Your task to perform on an android device: Show the shopping cart on bestbuy.com. Add "razer nari" to the cart on bestbuy.com Image 0: 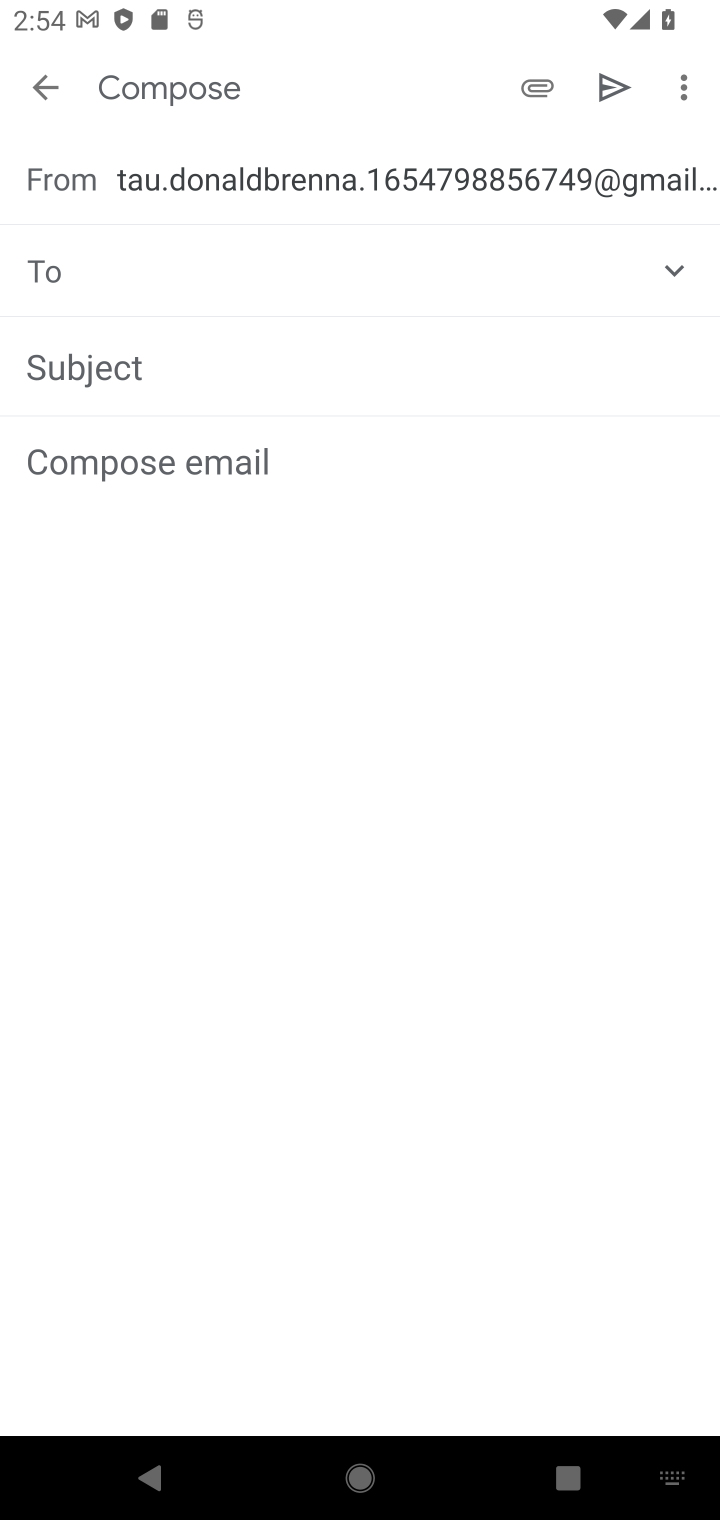
Step 0: press home button
Your task to perform on an android device: Show the shopping cart on bestbuy.com. Add "razer nari" to the cart on bestbuy.com Image 1: 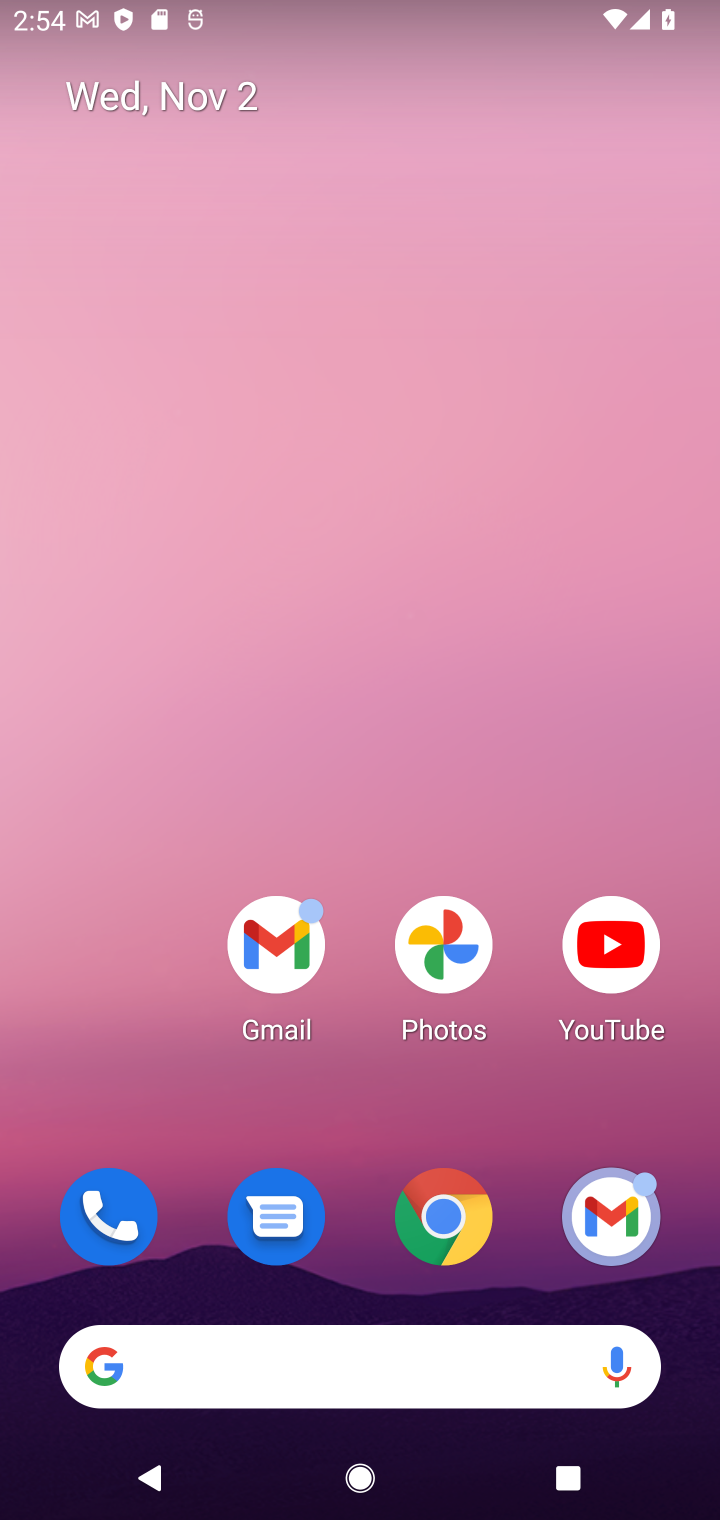
Step 1: click (440, 1202)
Your task to perform on an android device: Show the shopping cart on bestbuy.com. Add "razer nari" to the cart on bestbuy.com Image 2: 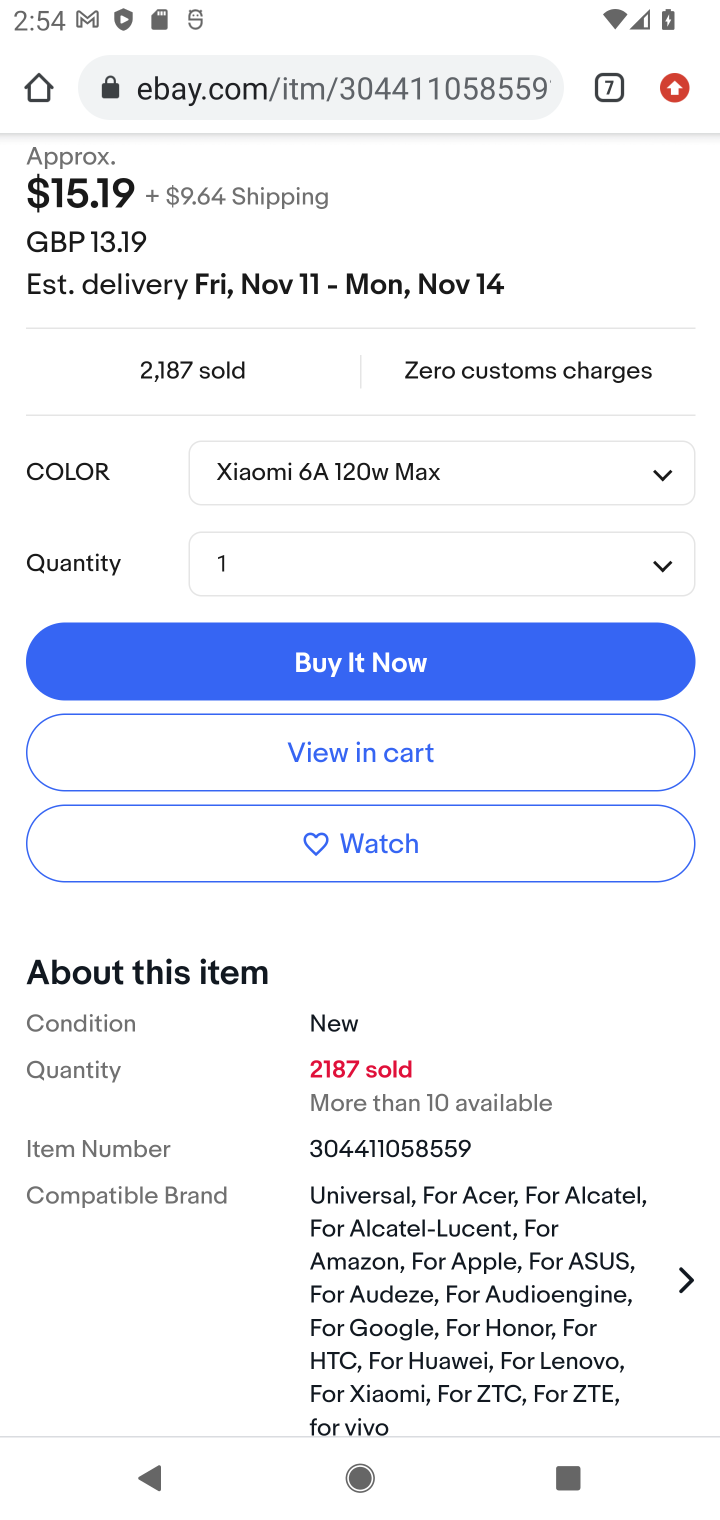
Step 2: click (605, 89)
Your task to perform on an android device: Show the shopping cart on bestbuy.com. Add "razer nari" to the cart on bestbuy.com Image 3: 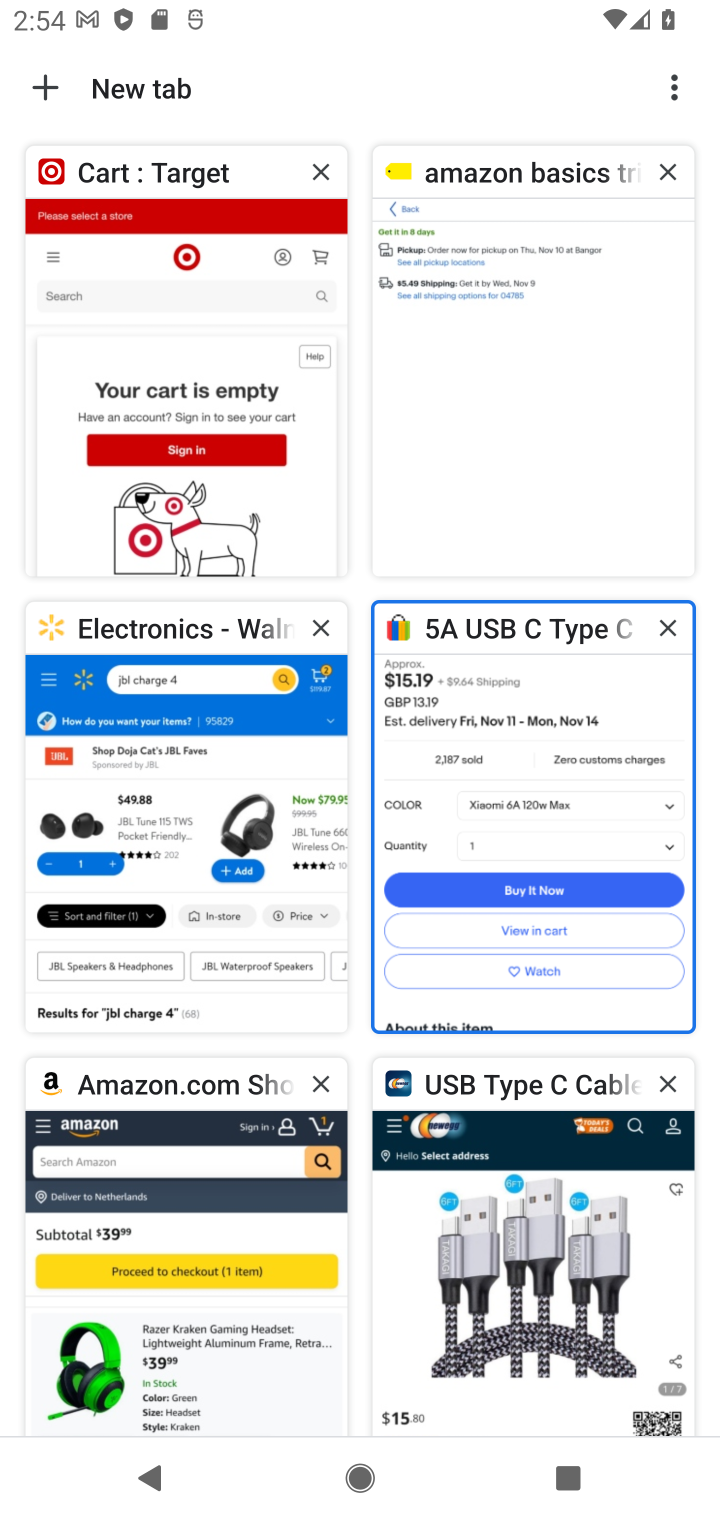
Step 3: click (525, 264)
Your task to perform on an android device: Show the shopping cart on bestbuy.com. Add "razer nari" to the cart on bestbuy.com Image 4: 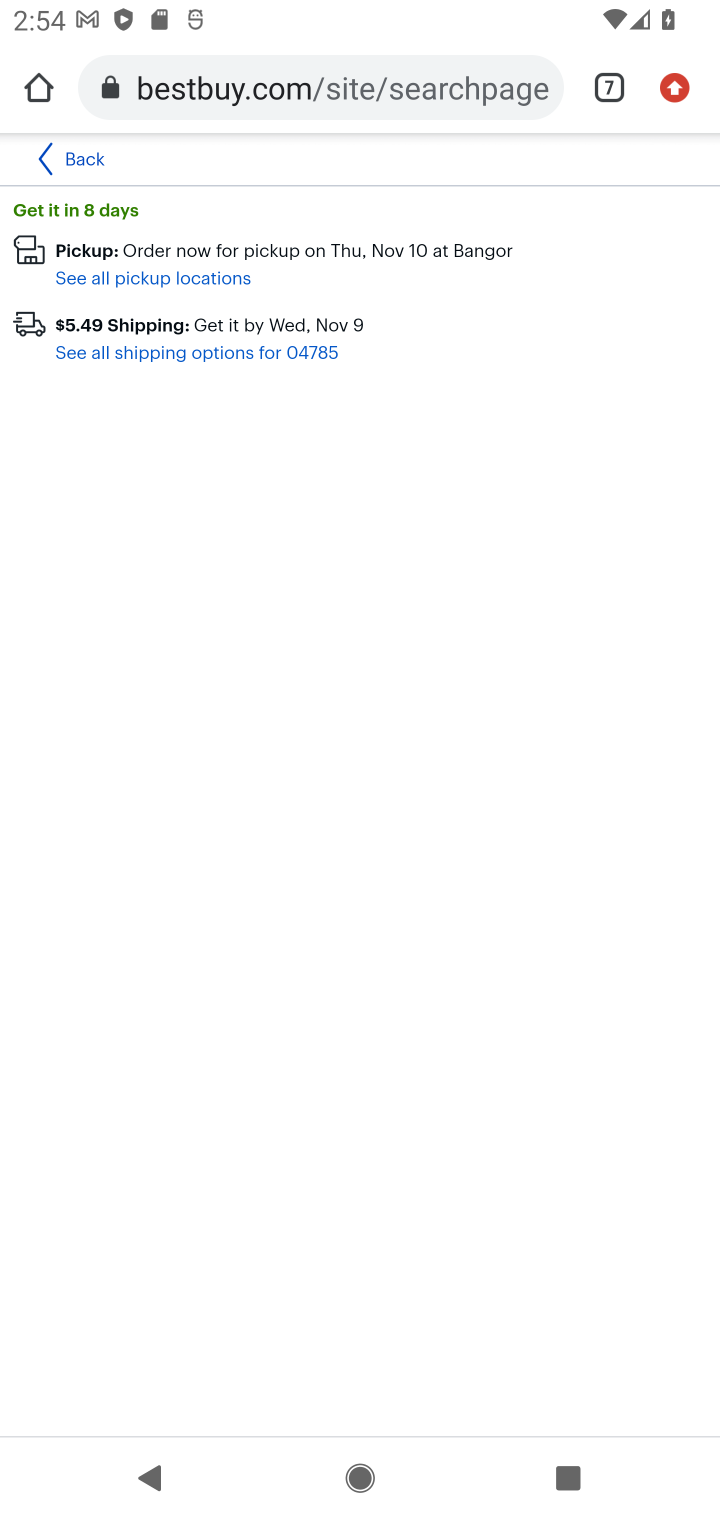
Step 4: click (72, 157)
Your task to perform on an android device: Show the shopping cart on bestbuy.com. Add "razer nari" to the cart on bestbuy.com Image 5: 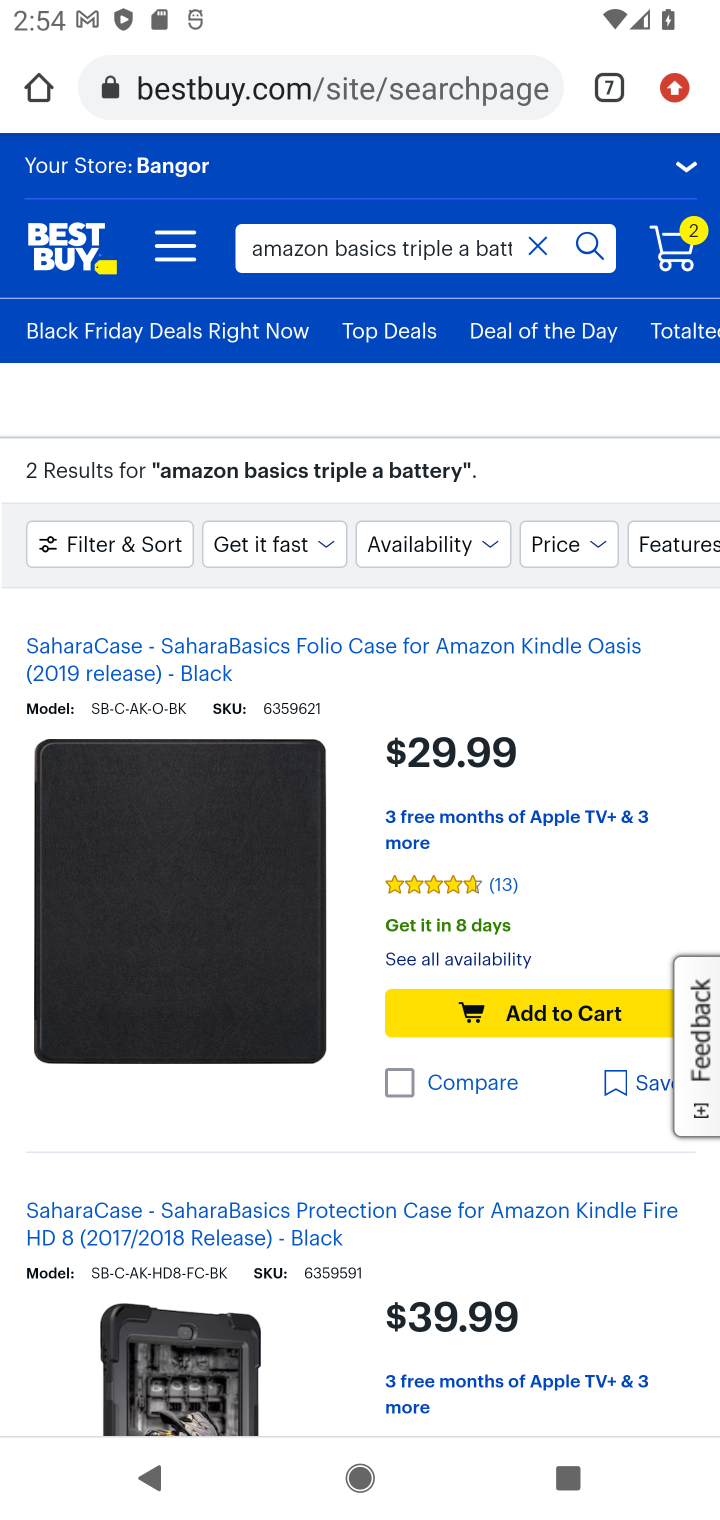
Step 5: click (540, 240)
Your task to perform on an android device: Show the shopping cart on bestbuy.com. Add "razer nari" to the cart on bestbuy.com Image 6: 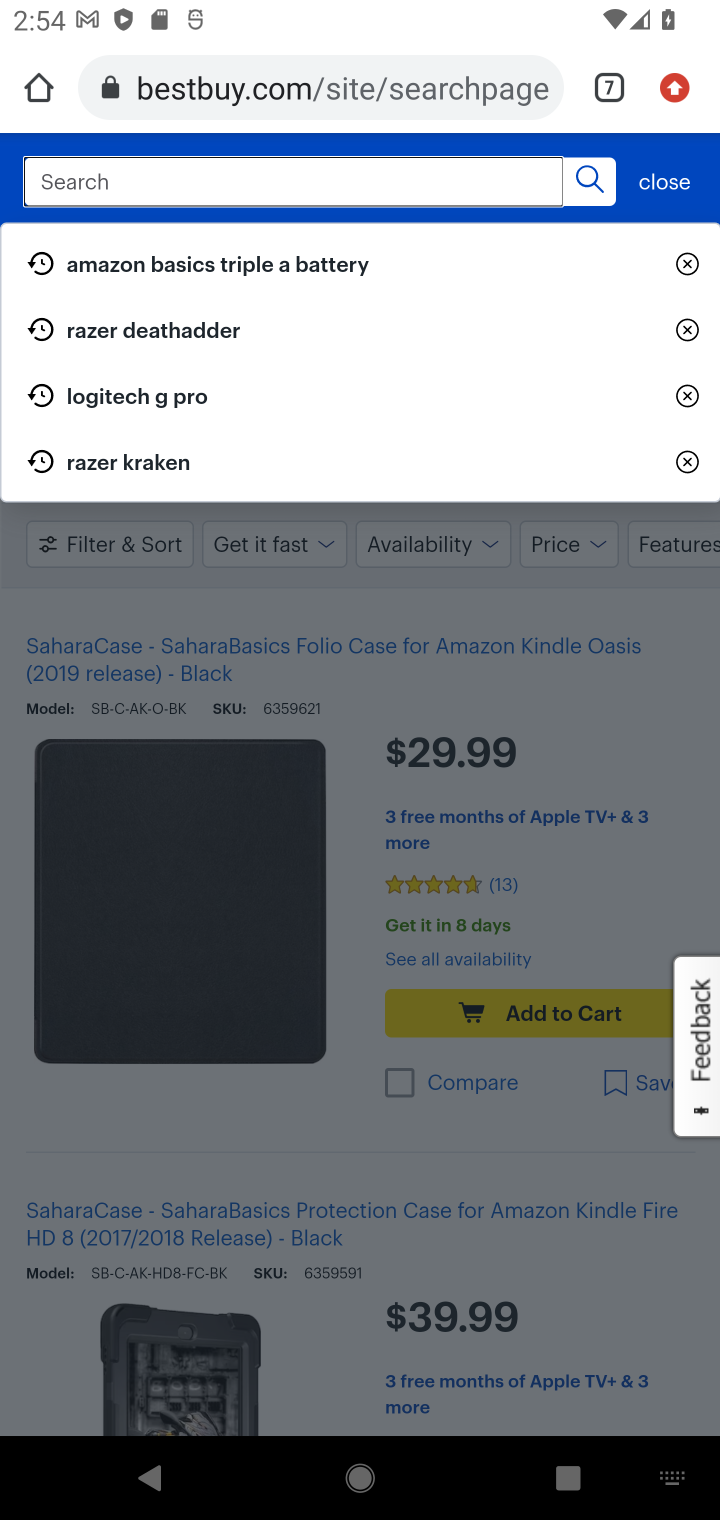
Step 6: type "razer nari"
Your task to perform on an android device: Show the shopping cart on bestbuy.com. Add "razer nari" to the cart on bestbuy.com Image 7: 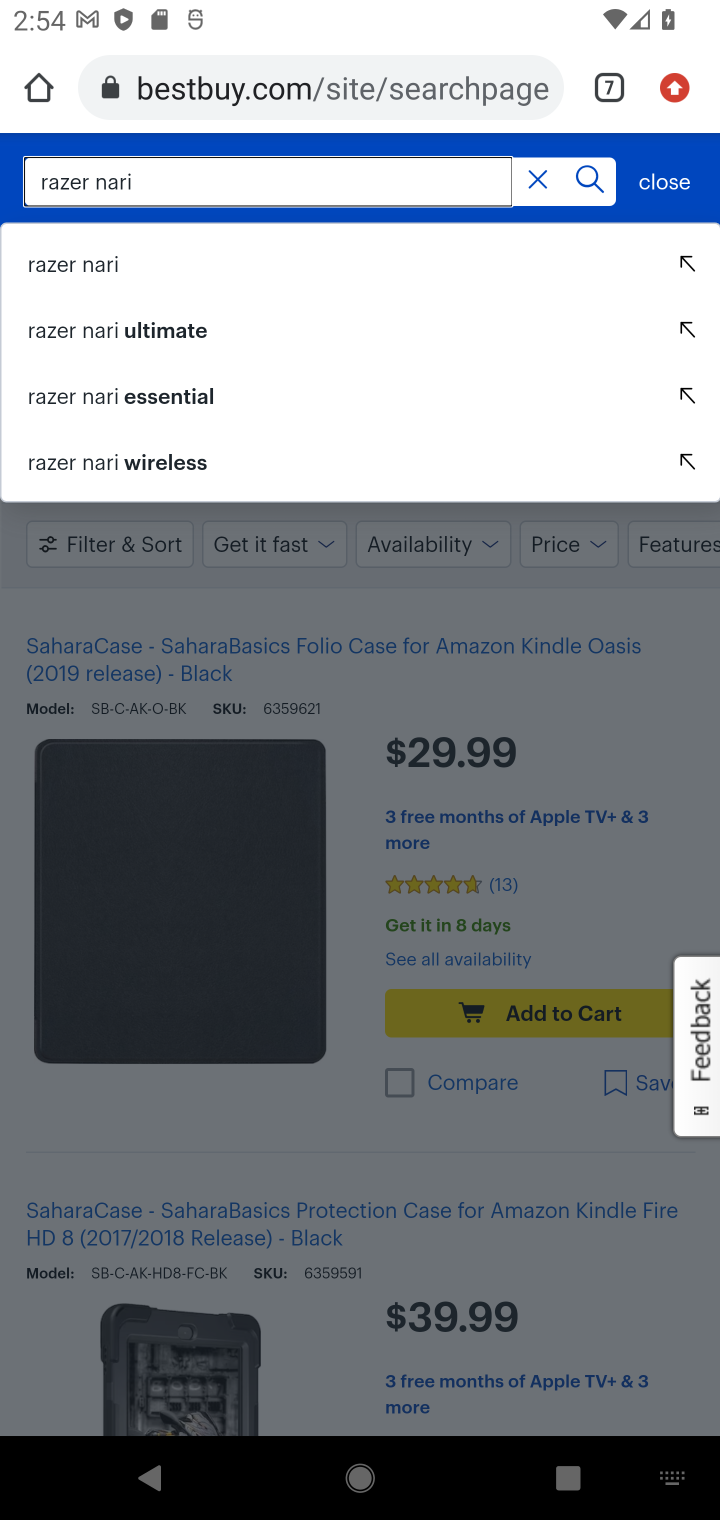
Step 7: click (49, 328)
Your task to perform on an android device: Show the shopping cart on bestbuy.com. Add "razer nari" to the cart on bestbuy.com Image 8: 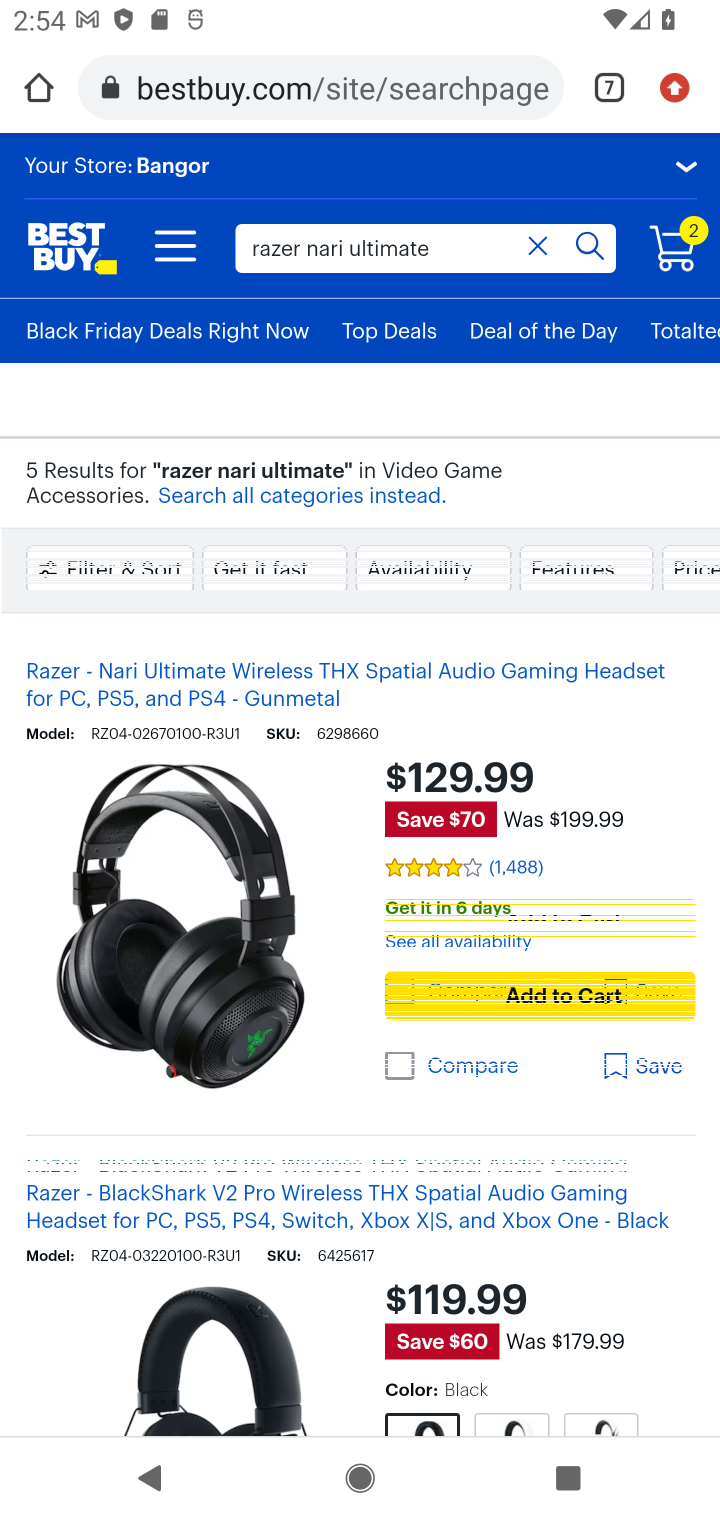
Step 8: click (529, 917)
Your task to perform on an android device: Show the shopping cart on bestbuy.com. Add "razer nari" to the cart on bestbuy.com Image 9: 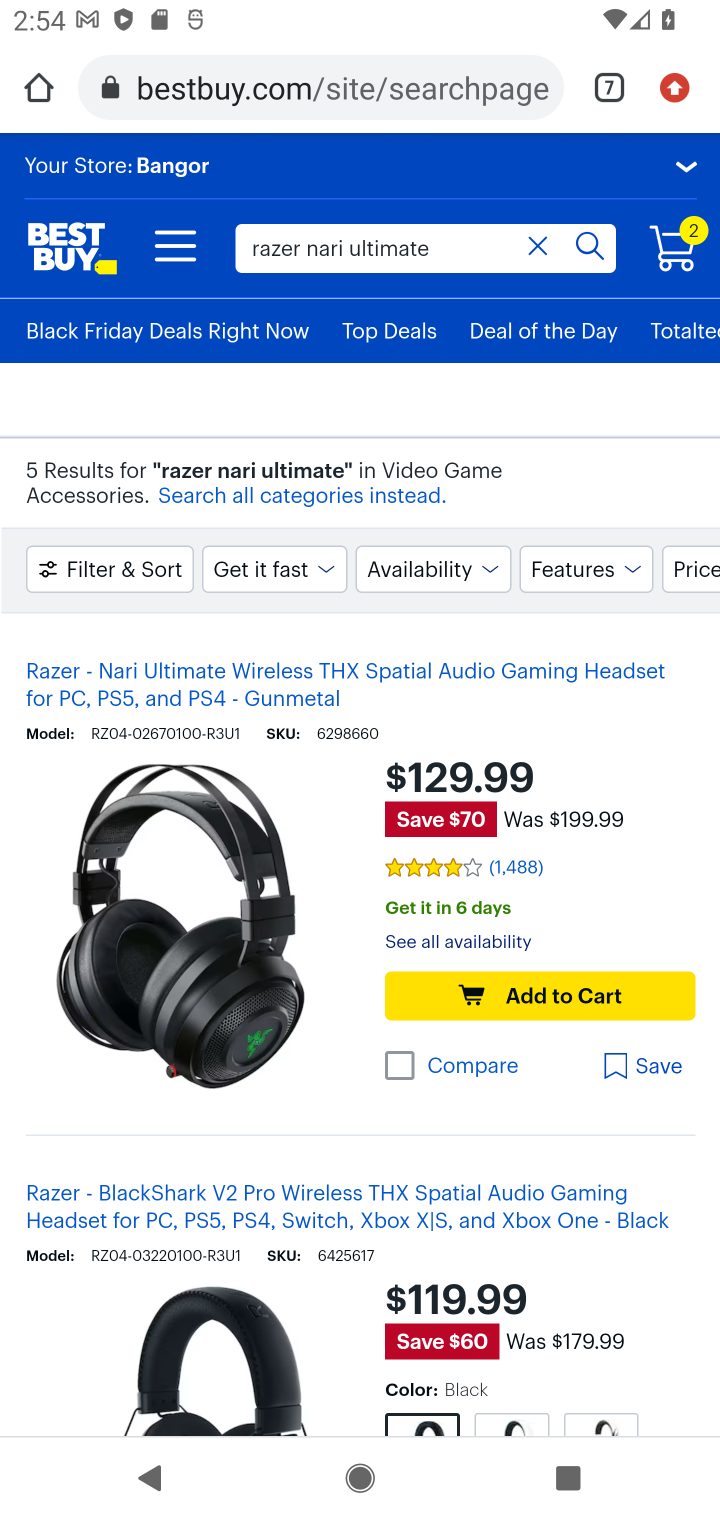
Step 9: click (537, 982)
Your task to perform on an android device: Show the shopping cart on bestbuy.com. Add "razer nari" to the cart on bestbuy.com Image 10: 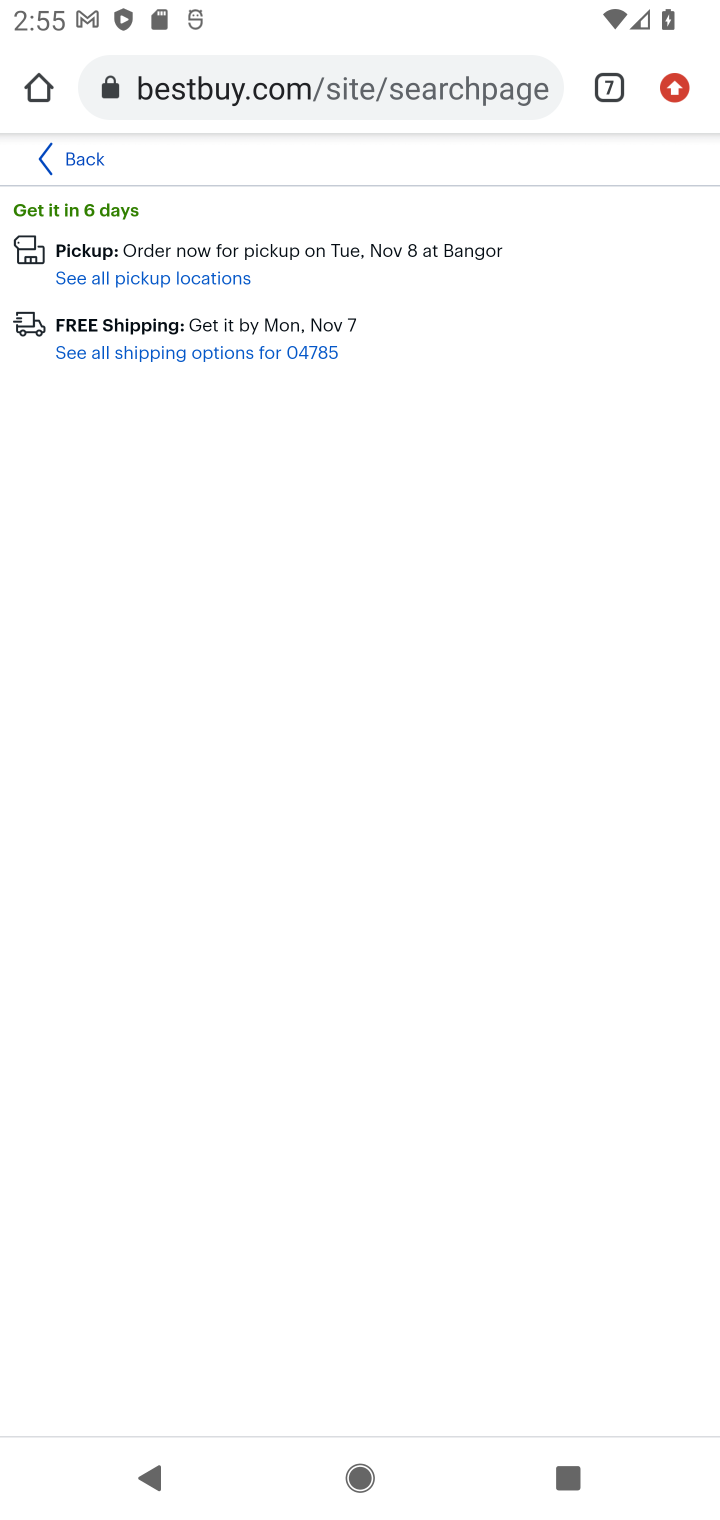
Step 10: task complete